Your task to perform on an android device: open app "Google Docs" Image 0: 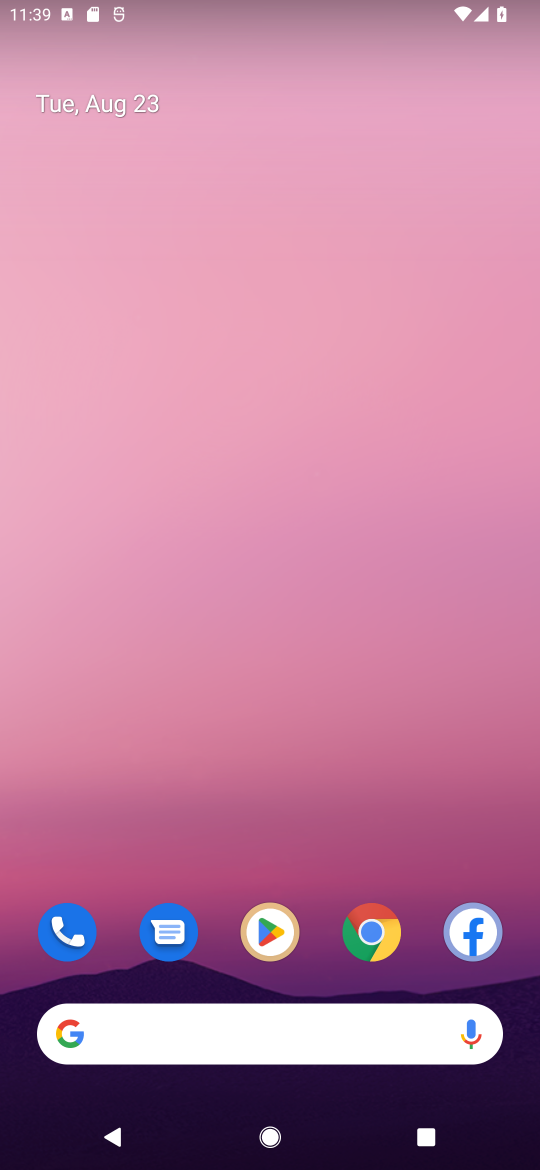
Step 0: click (268, 936)
Your task to perform on an android device: open app "Google Docs" Image 1: 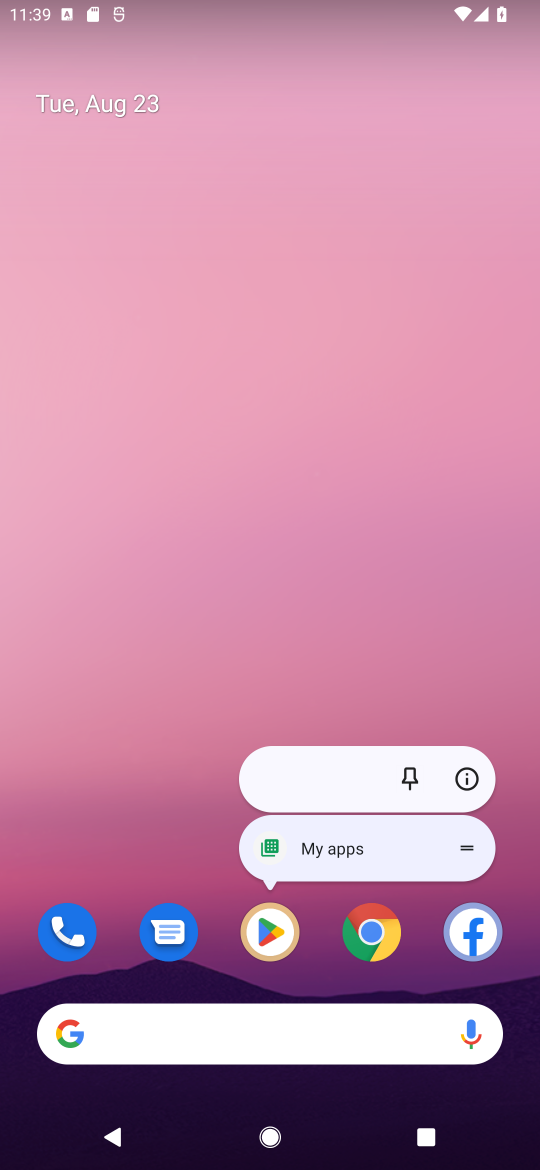
Step 1: click (272, 942)
Your task to perform on an android device: open app "Google Docs" Image 2: 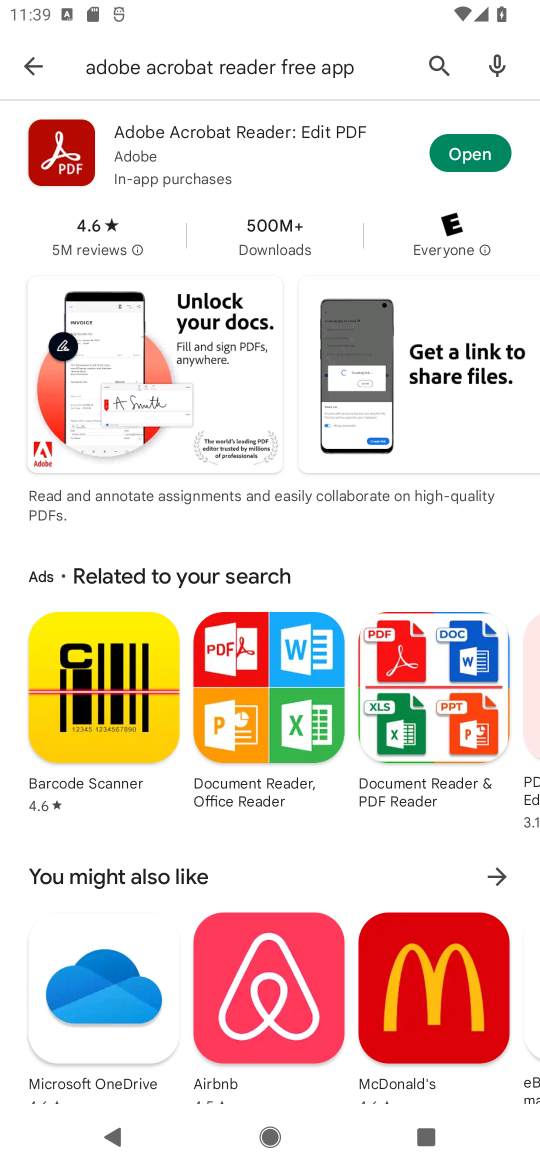
Step 2: click (434, 62)
Your task to perform on an android device: open app "Google Docs" Image 3: 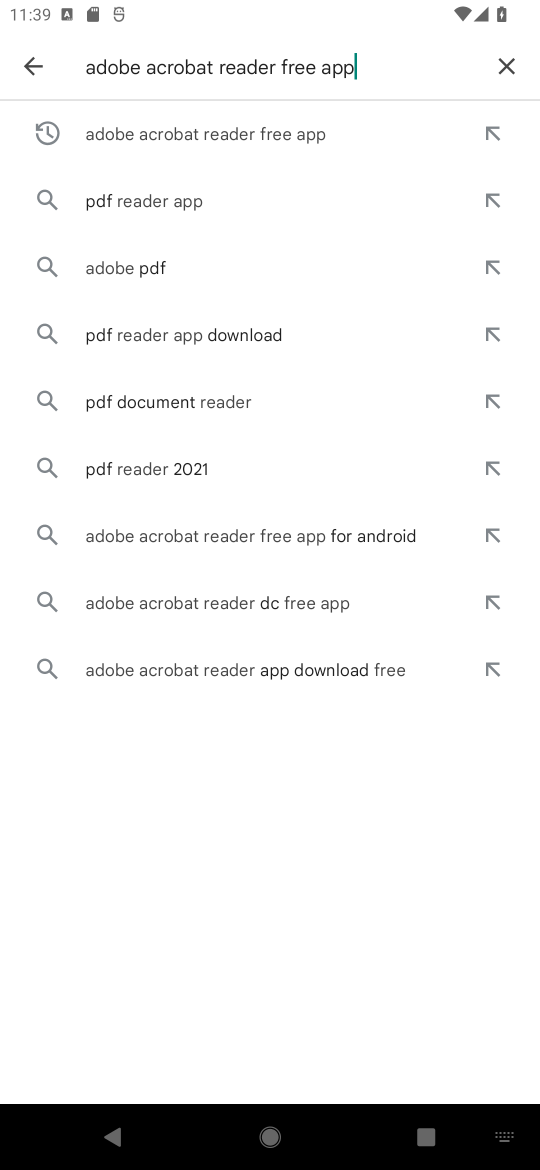
Step 3: click (518, 55)
Your task to perform on an android device: open app "Google Docs" Image 4: 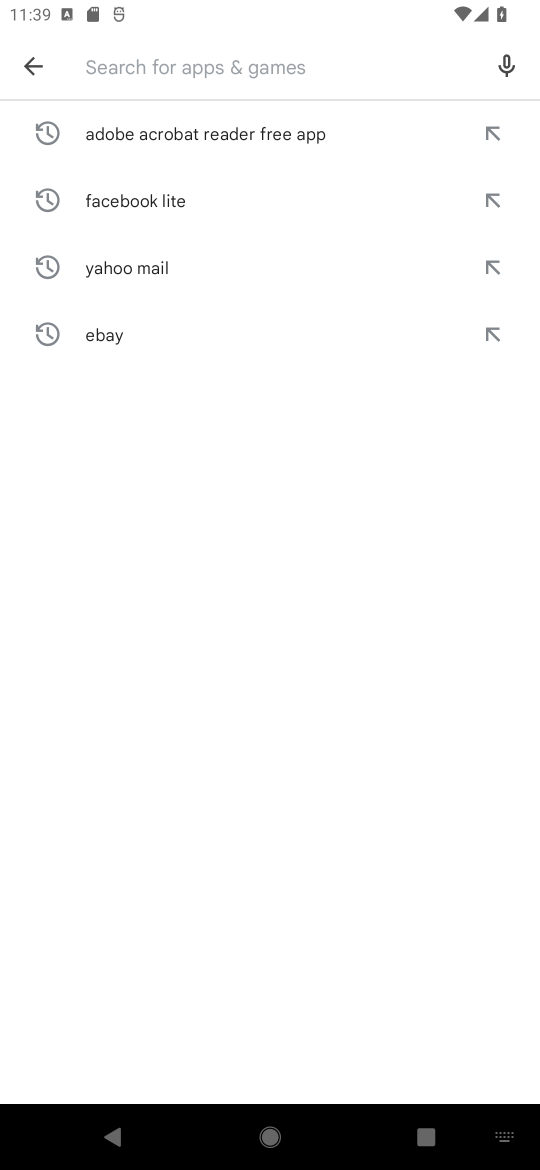
Step 4: click (144, 61)
Your task to perform on an android device: open app "Google Docs" Image 5: 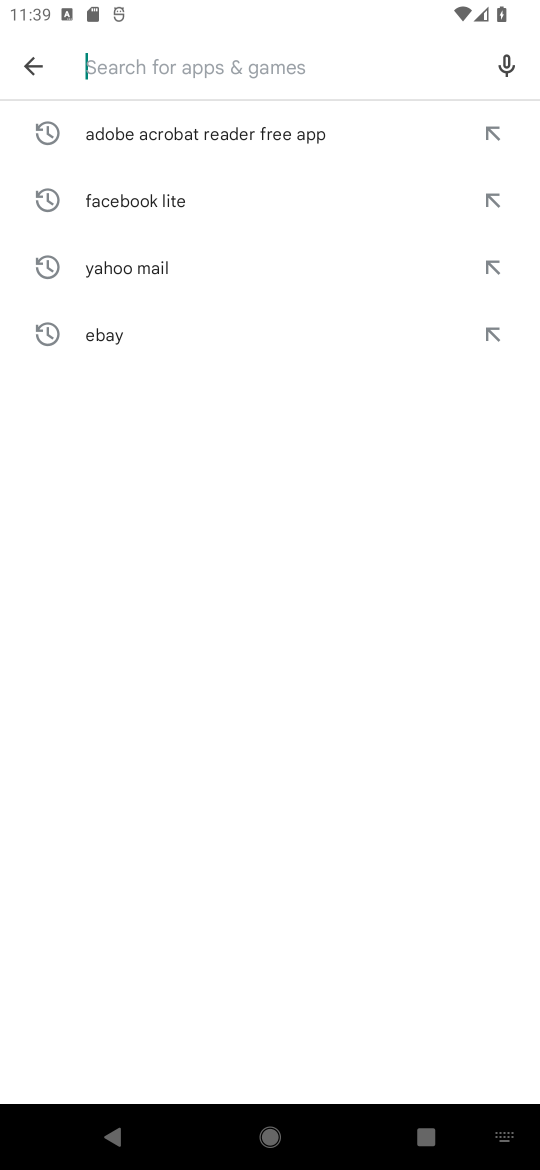
Step 5: type "Google Docs"
Your task to perform on an android device: open app "Google Docs" Image 6: 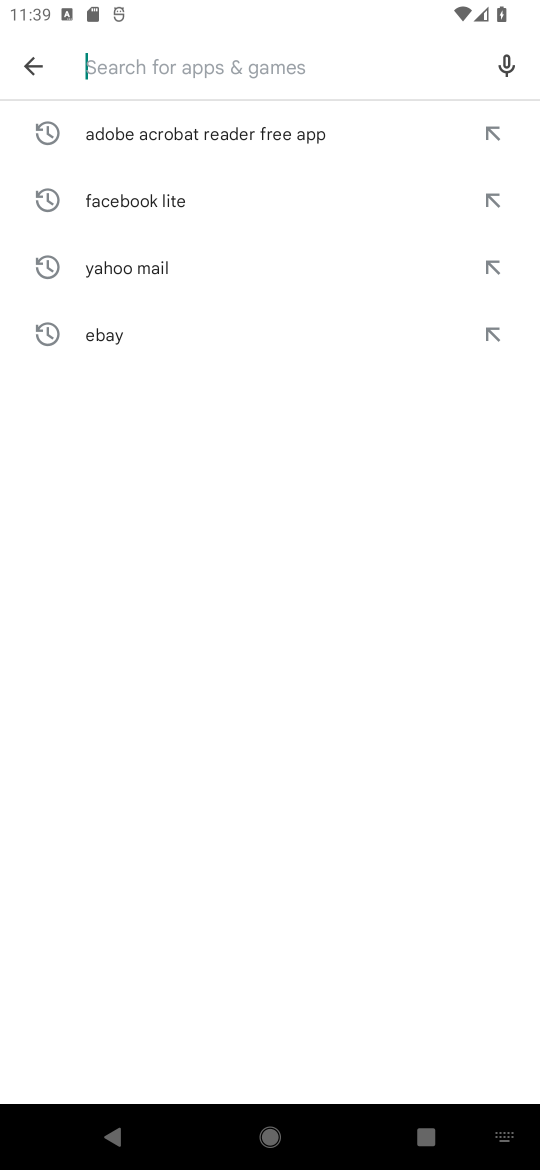
Step 6: click (313, 735)
Your task to perform on an android device: open app "Google Docs" Image 7: 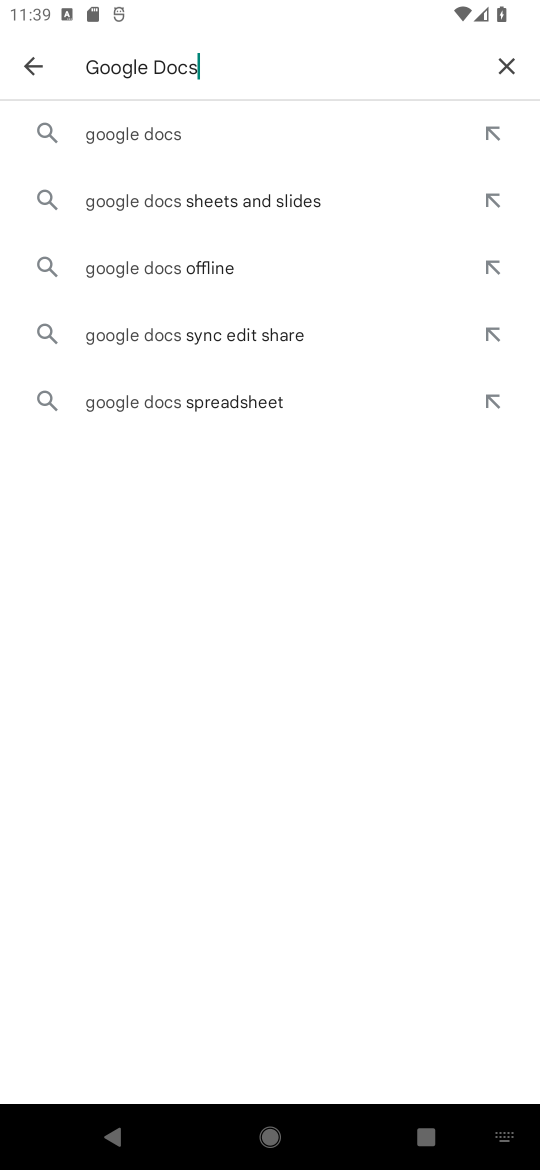
Step 7: click (174, 136)
Your task to perform on an android device: open app "Google Docs" Image 8: 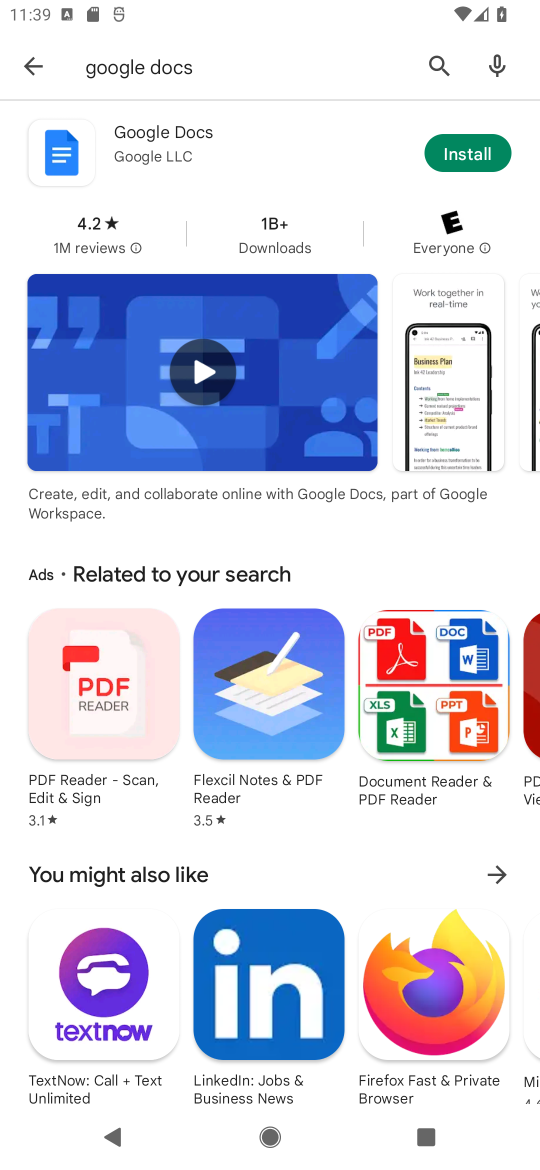
Step 8: click (207, 148)
Your task to perform on an android device: open app "Google Docs" Image 9: 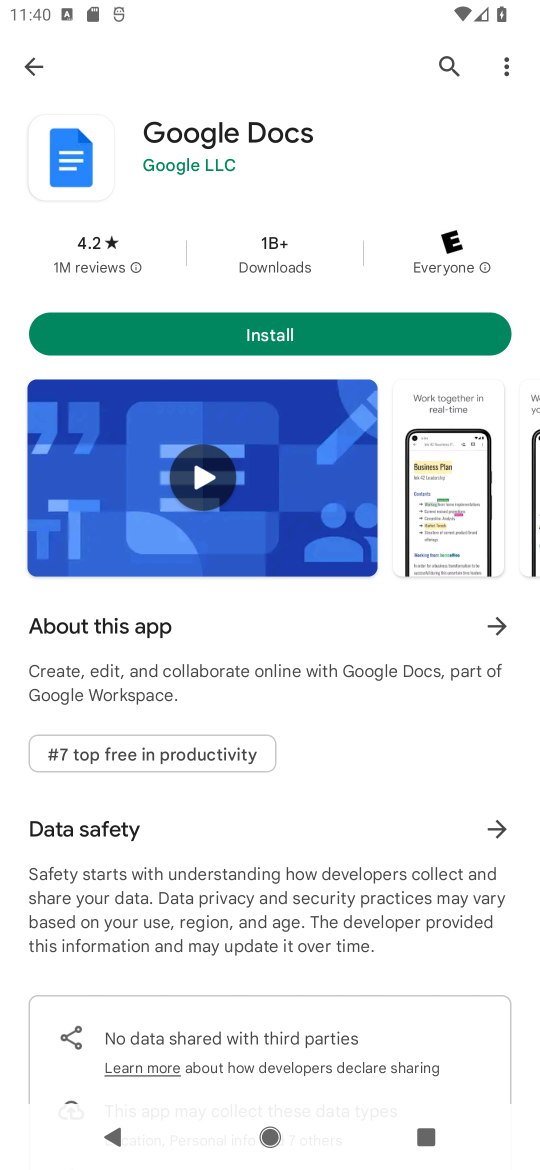
Step 9: task complete